Your task to perform on an android device: Open calendar and show me the fourth week of next month Image 0: 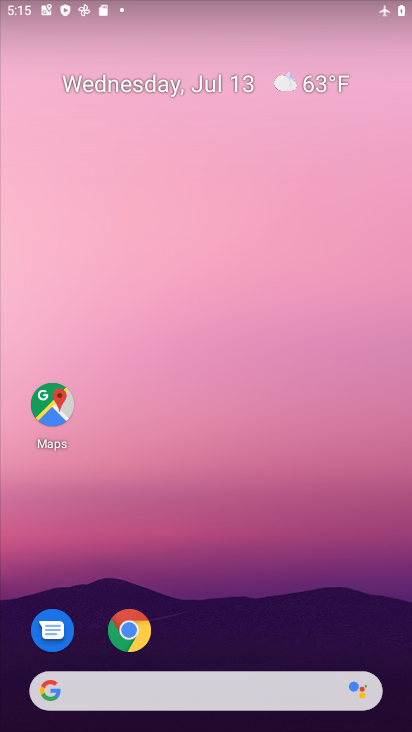
Step 0: press home button
Your task to perform on an android device: Open calendar and show me the fourth week of next month Image 1: 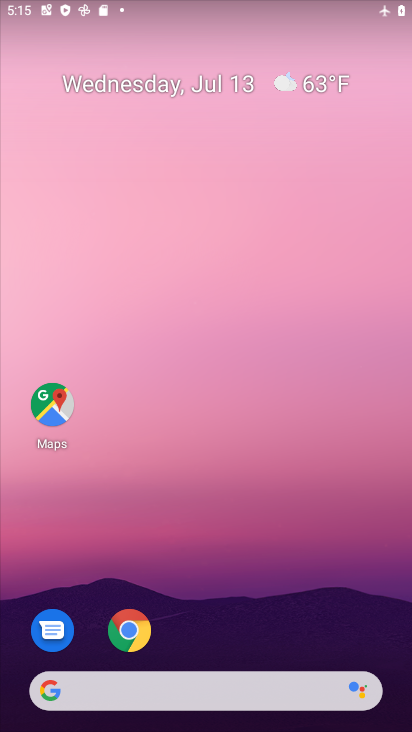
Step 1: drag from (220, 644) to (225, 169)
Your task to perform on an android device: Open calendar and show me the fourth week of next month Image 2: 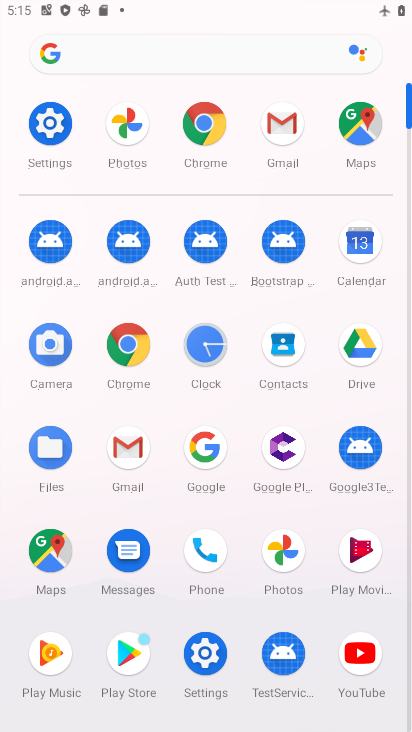
Step 2: click (365, 241)
Your task to perform on an android device: Open calendar and show me the fourth week of next month Image 3: 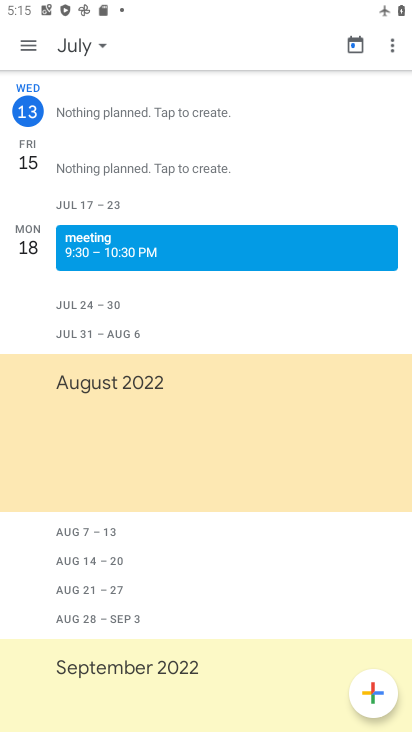
Step 3: click (102, 45)
Your task to perform on an android device: Open calendar and show me the fourth week of next month Image 4: 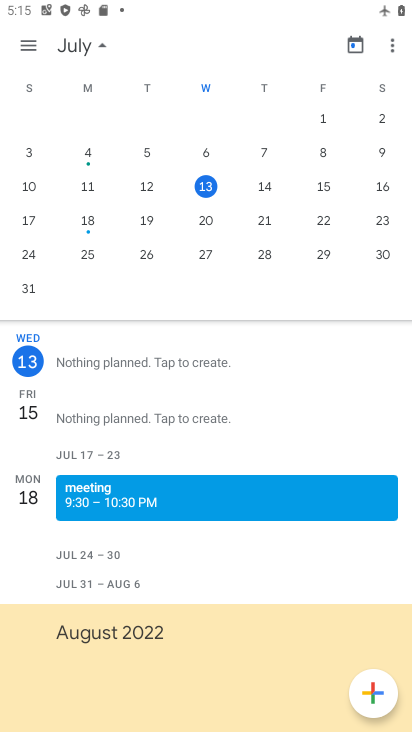
Step 4: drag from (313, 145) to (32, 134)
Your task to perform on an android device: Open calendar and show me the fourth week of next month Image 5: 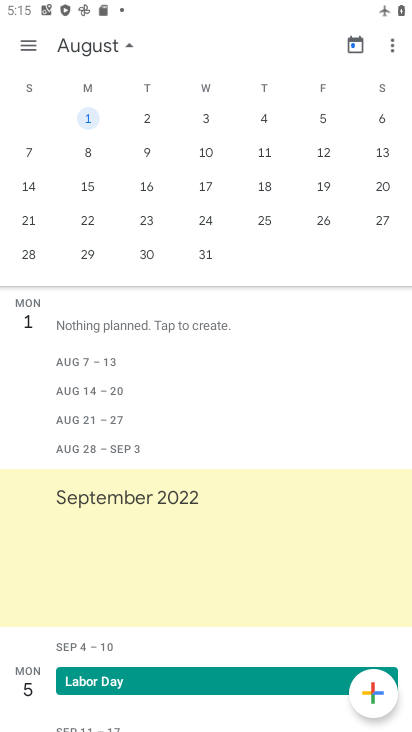
Step 5: click (206, 219)
Your task to perform on an android device: Open calendar and show me the fourth week of next month Image 6: 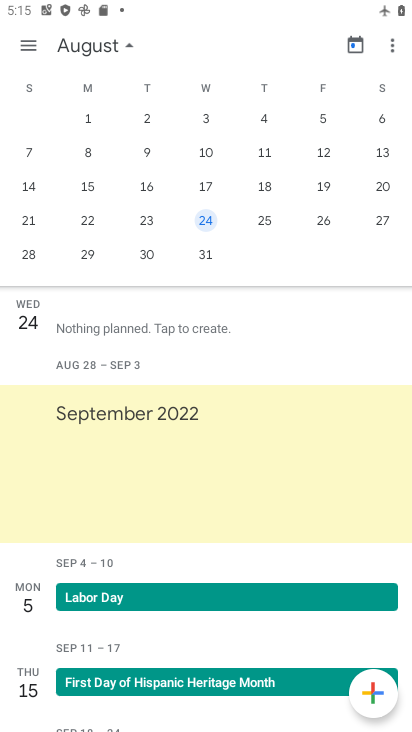
Step 6: click (261, 218)
Your task to perform on an android device: Open calendar and show me the fourth week of next month Image 7: 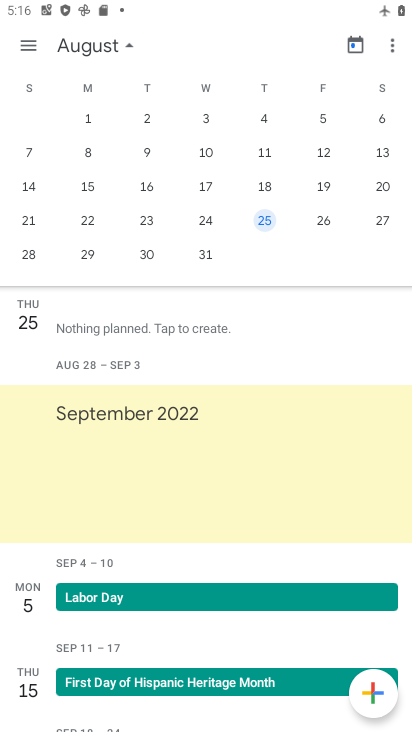
Step 7: click (332, 220)
Your task to perform on an android device: Open calendar and show me the fourth week of next month Image 8: 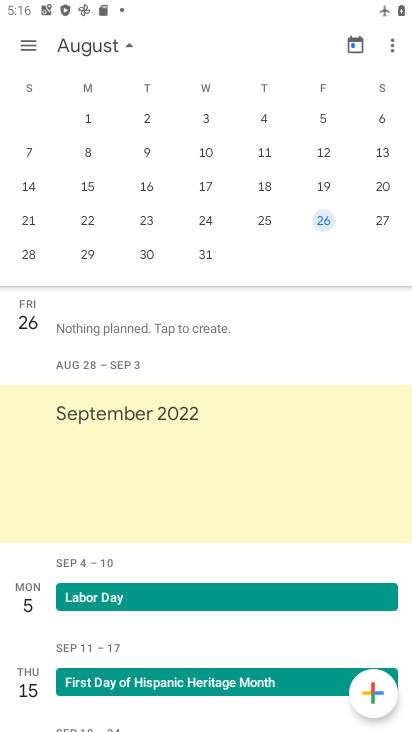
Step 8: click (379, 223)
Your task to perform on an android device: Open calendar and show me the fourth week of next month Image 9: 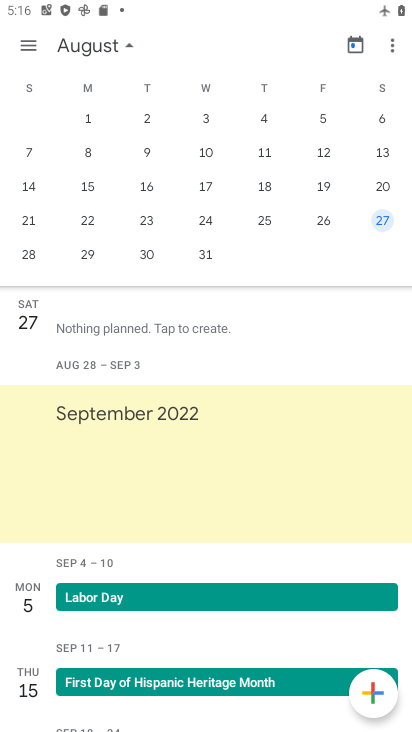
Step 9: click (28, 257)
Your task to perform on an android device: Open calendar and show me the fourth week of next month Image 10: 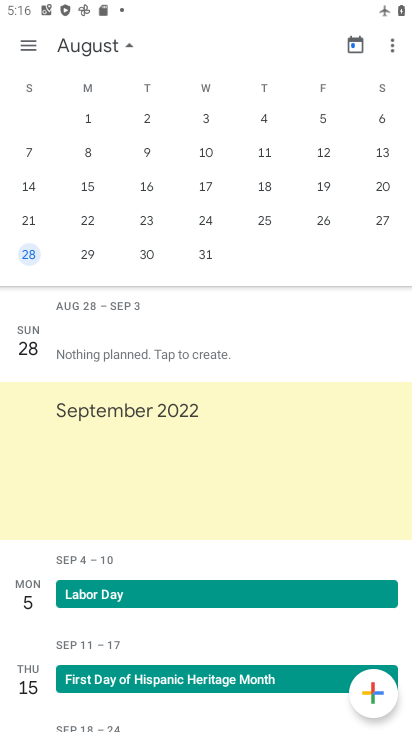
Step 10: click (91, 259)
Your task to perform on an android device: Open calendar and show me the fourth week of next month Image 11: 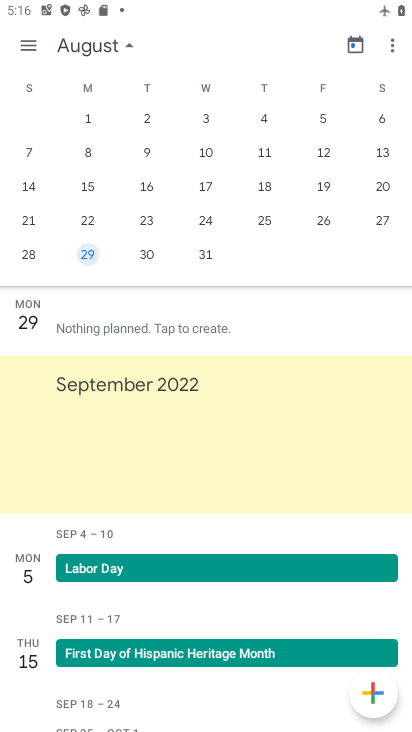
Step 11: click (152, 255)
Your task to perform on an android device: Open calendar and show me the fourth week of next month Image 12: 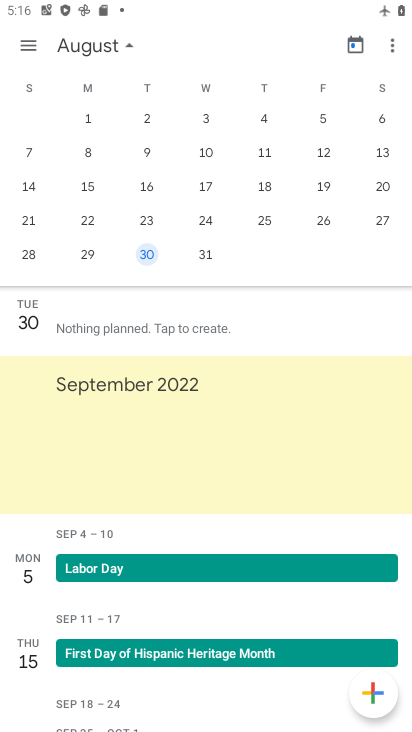
Step 12: click (207, 257)
Your task to perform on an android device: Open calendar and show me the fourth week of next month Image 13: 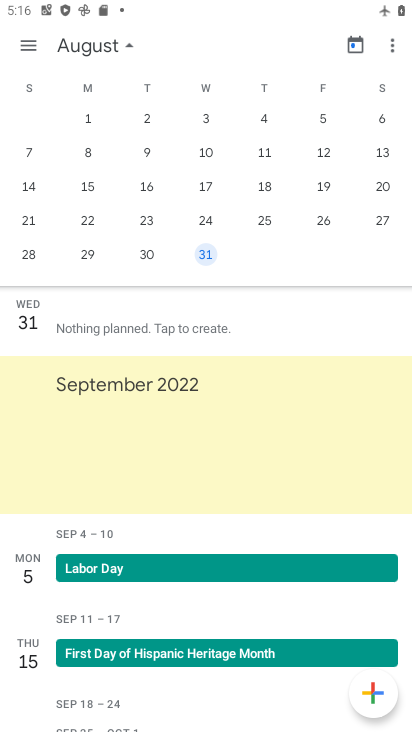
Step 13: task complete